Your task to perform on an android device: Open Yahoo.com Image 0: 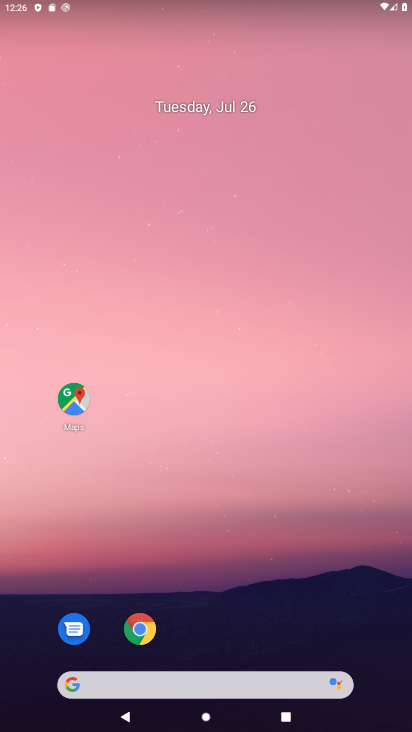
Step 0: click (141, 625)
Your task to perform on an android device: Open Yahoo.com Image 1: 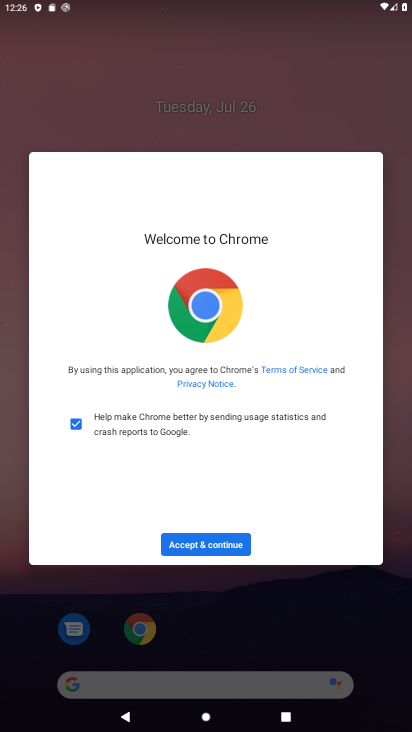
Step 1: click (206, 539)
Your task to perform on an android device: Open Yahoo.com Image 2: 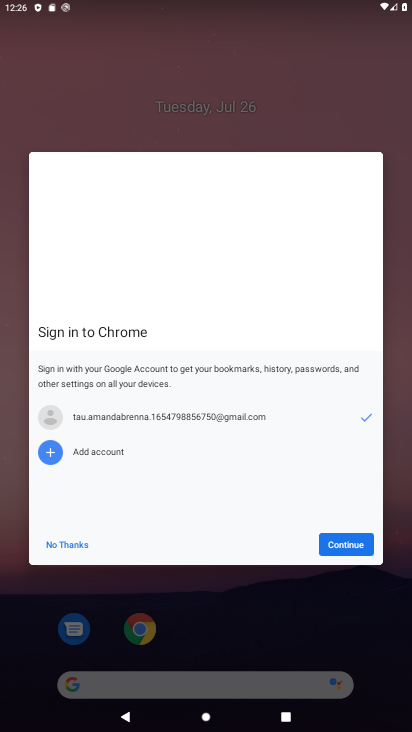
Step 2: click (347, 533)
Your task to perform on an android device: Open Yahoo.com Image 3: 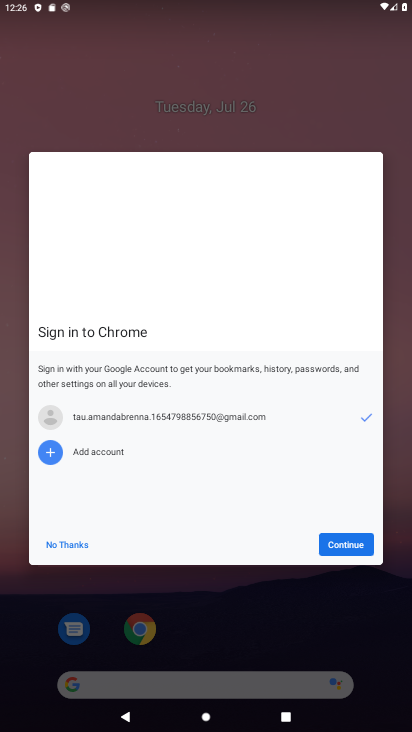
Step 3: click (346, 538)
Your task to perform on an android device: Open Yahoo.com Image 4: 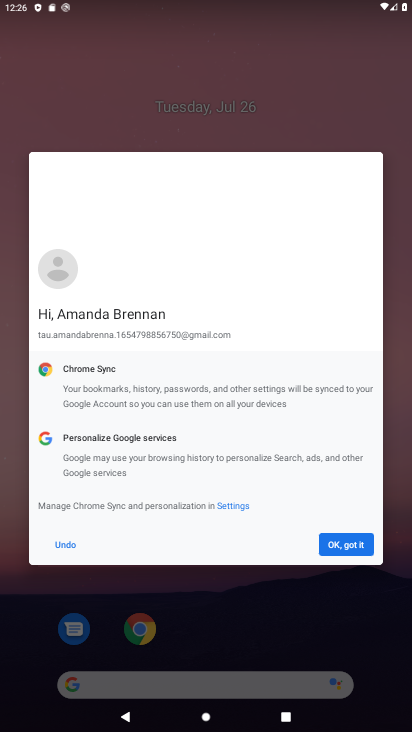
Step 4: click (340, 547)
Your task to perform on an android device: Open Yahoo.com Image 5: 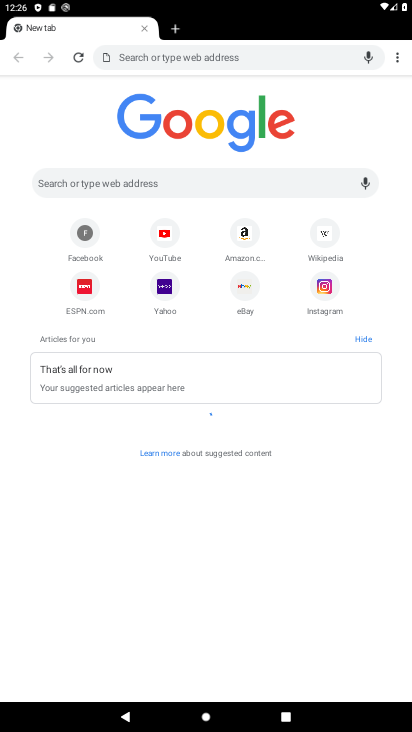
Step 5: click (167, 294)
Your task to perform on an android device: Open Yahoo.com Image 6: 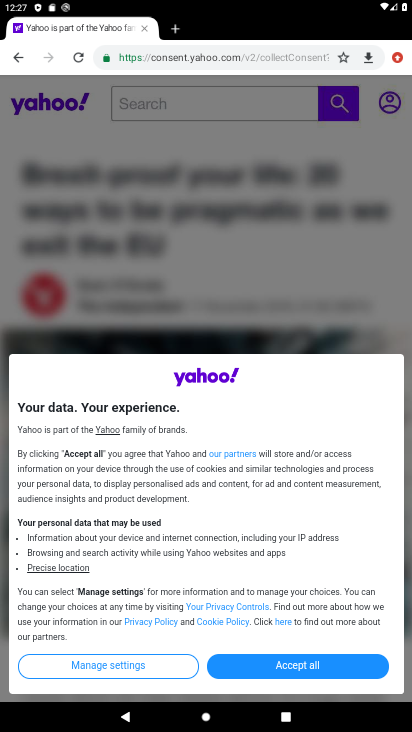
Step 6: task complete